Your task to perform on an android device: open wifi settings Image 0: 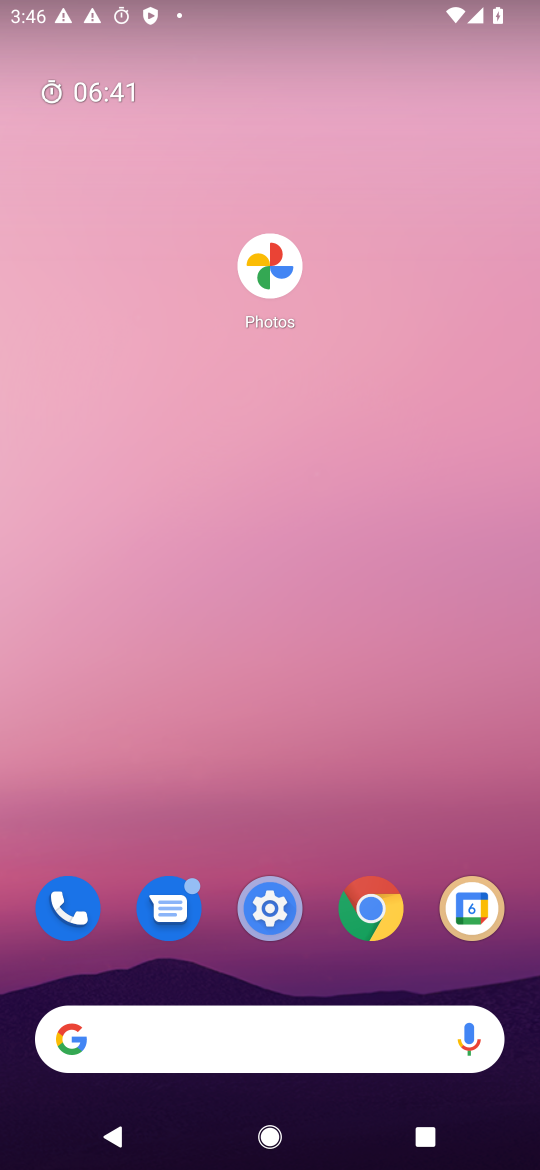
Step 0: drag from (252, 941) to (38, 676)
Your task to perform on an android device: open wifi settings Image 1: 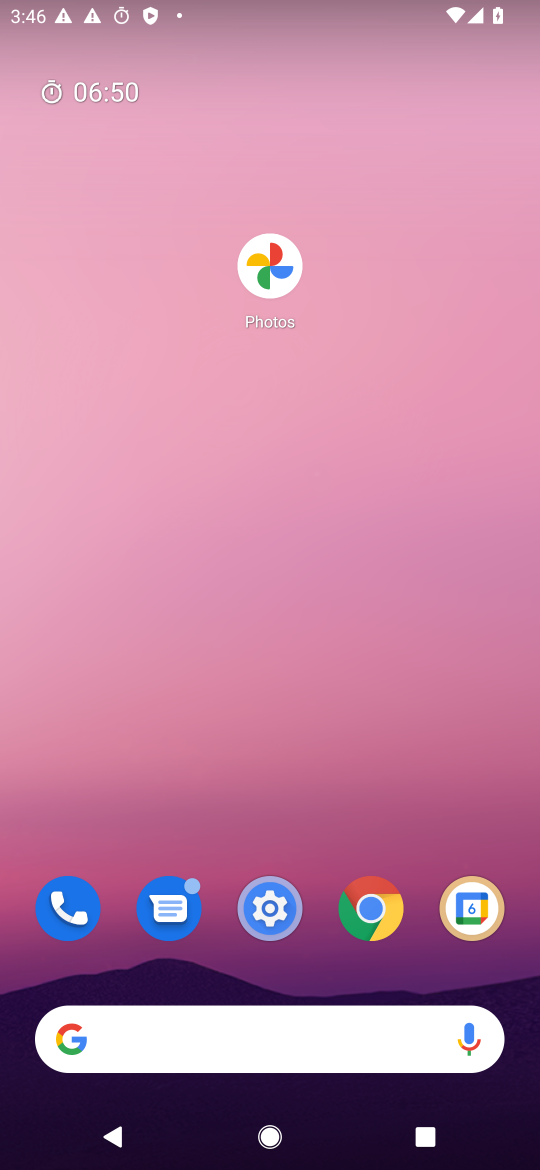
Step 1: drag from (247, 742) to (276, 264)
Your task to perform on an android device: open wifi settings Image 2: 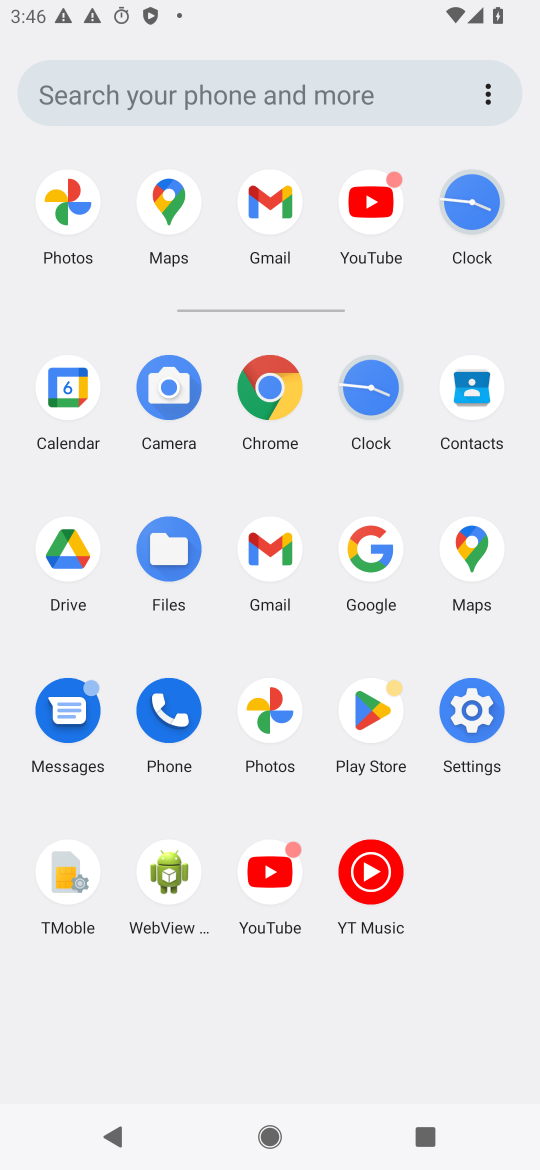
Step 2: click (472, 715)
Your task to perform on an android device: open wifi settings Image 3: 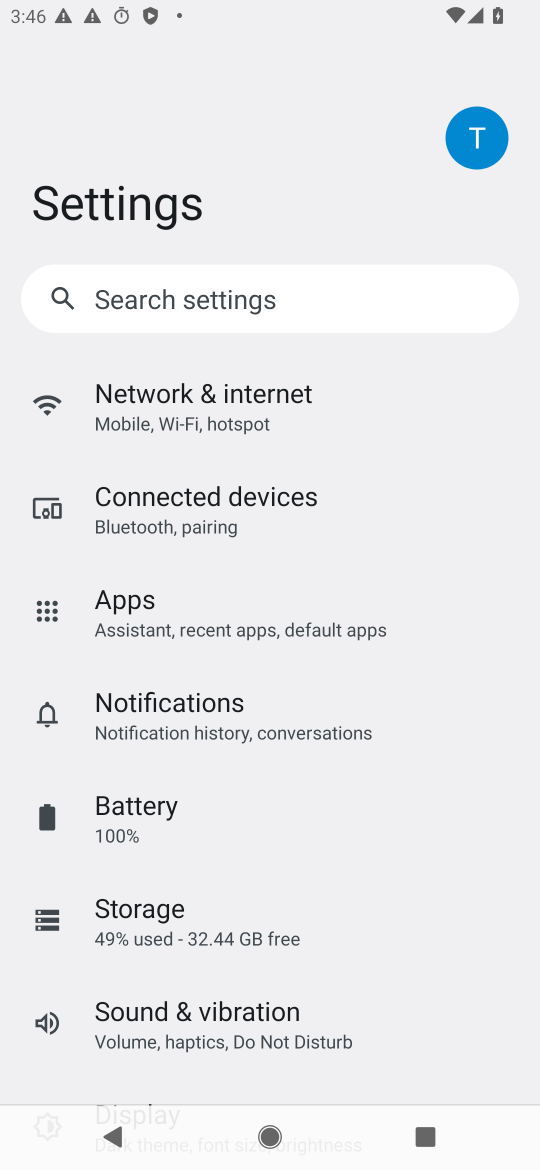
Step 3: click (182, 402)
Your task to perform on an android device: open wifi settings Image 4: 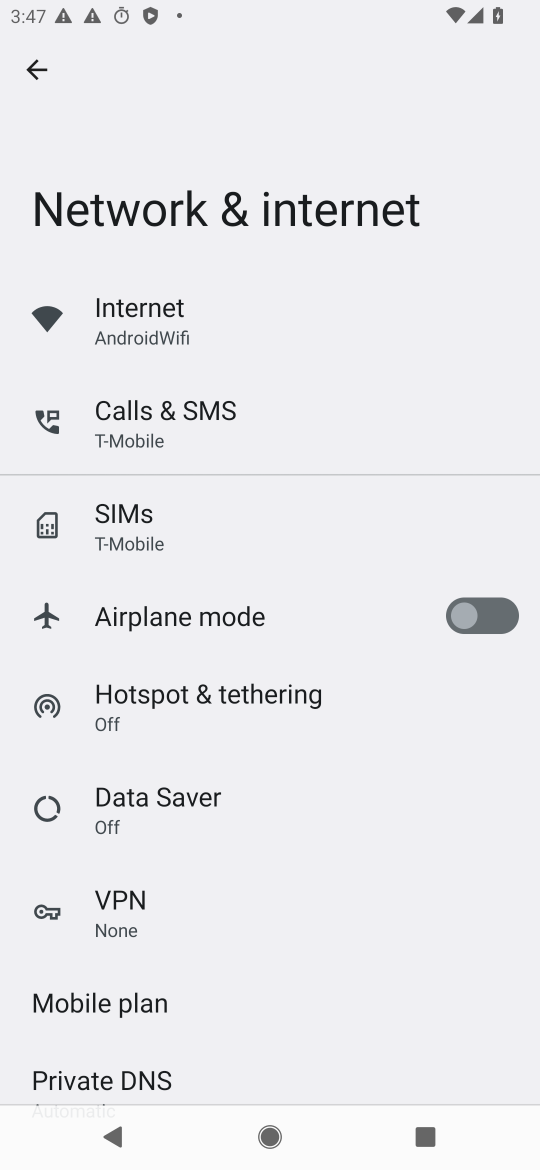
Step 4: click (171, 340)
Your task to perform on an android device: open wifi settings Image 5: 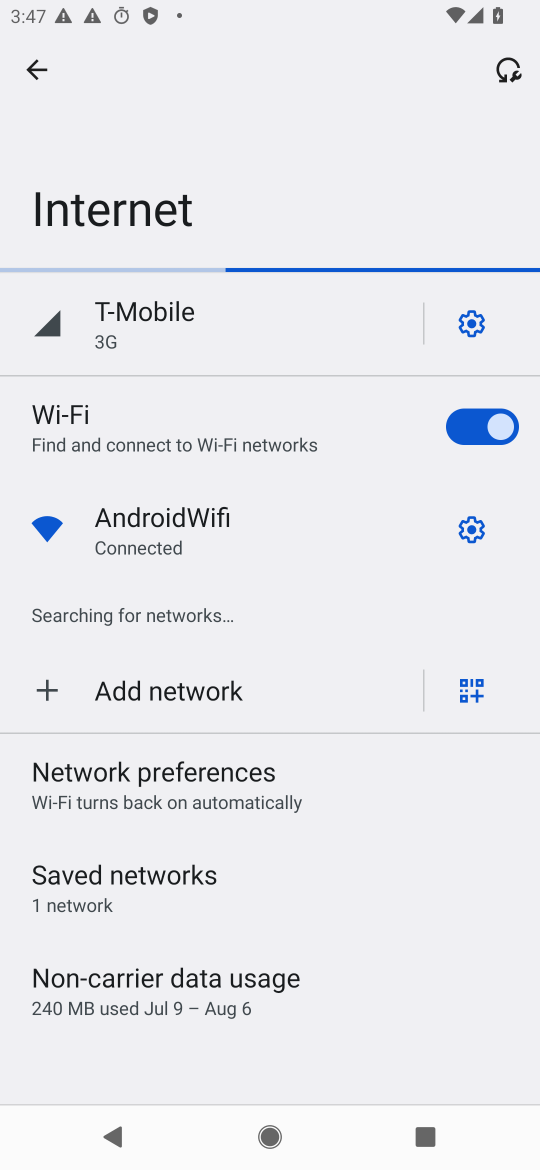
Step 5: task complete